Your task to perform on an android device: Go to battery settings Image 0: 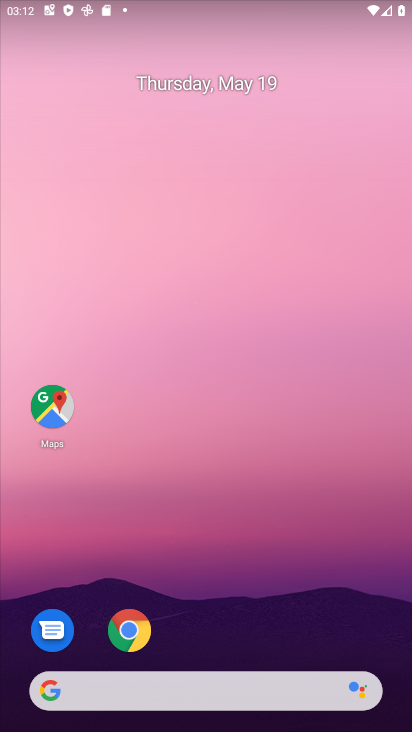
Step 0: drag from (385, 644) to (323, 139)
Your task to perform on an android device: Go to battery settings Image 1: 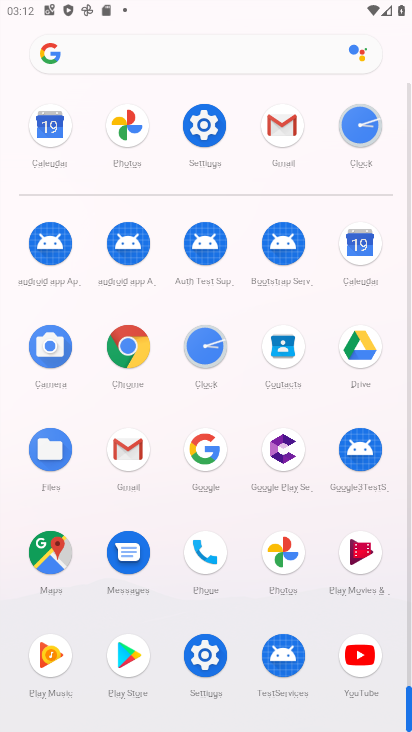
Step 1: click (205, 653)
Your task to perform on an android device: Go to battery settings Image 2: 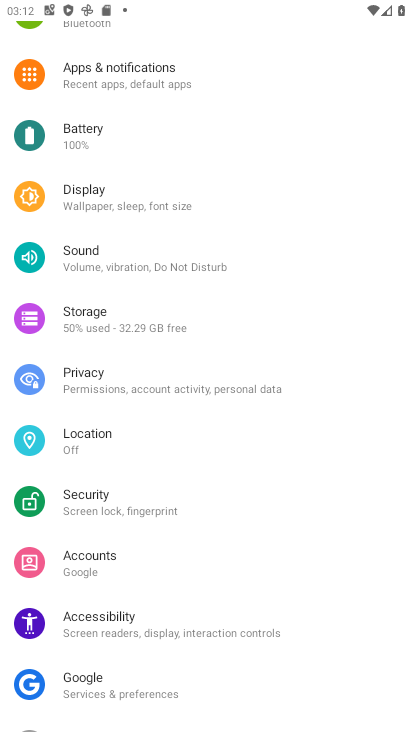
Step 2: click (74, 139)
Your task to perform on an android device: Go to battery settings Image 3: 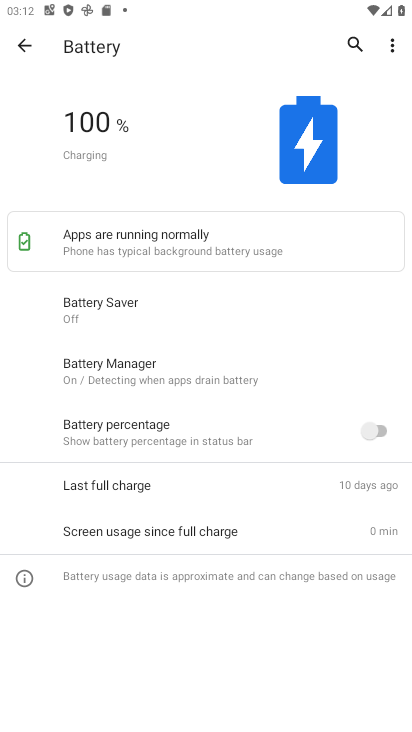
Step 3: task complete